Your task to perform on an android device: allow notifications from all sites in the chrome app Image 0: 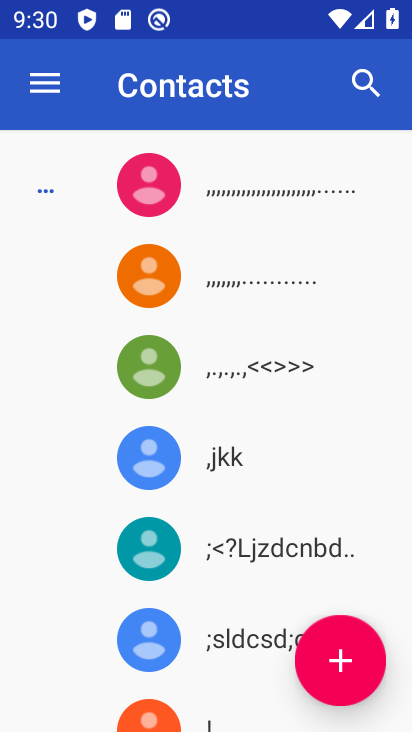
Step 0: press home button
Your task to perform on an android device: allow notifications from all sites in the chrome app Image 1: 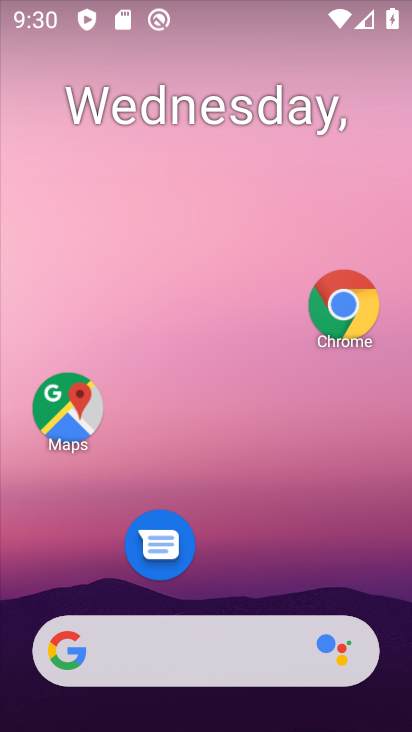
Step 1: click (368, 314)
Your task to perform on an android device: allow notifications from all sites in the chrome app Image 2: 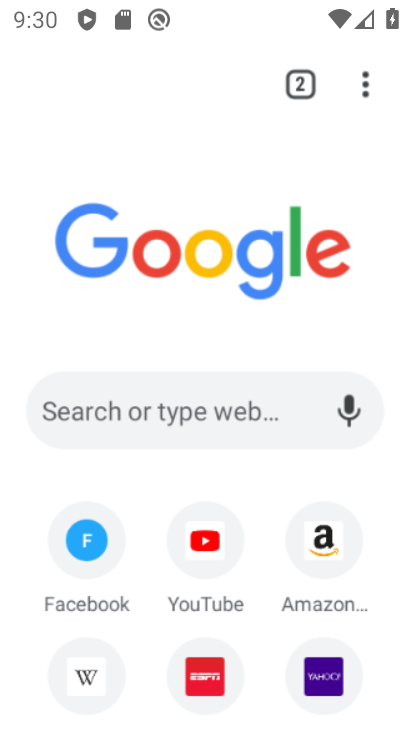
Step 2: click (368, 314)
Your task to perform on an android device: allow notifications from all sites in the chrome app Image 3: 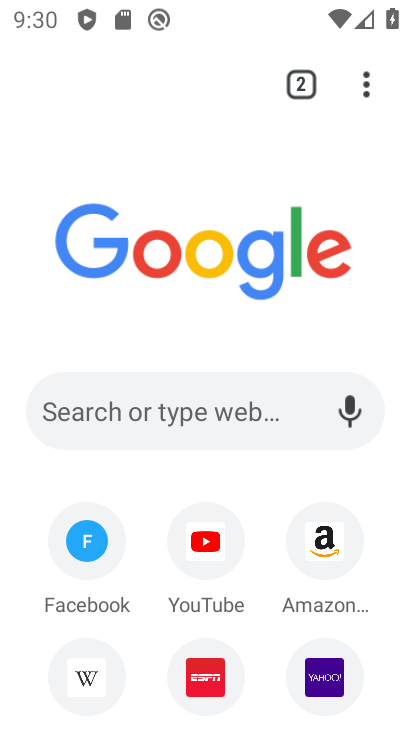
Step 3: click (367, 78)
Your task to perform on an android device: allow notifications from all sites in the chrome app Image 4: 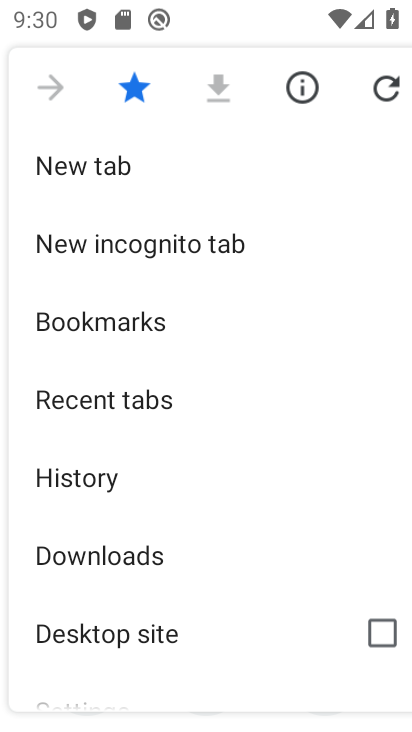
Step 4: drag from (320, 538) to (300, 326)
Your task to perform on an android device: allow notifications from all sites in the chrome app Image 5: 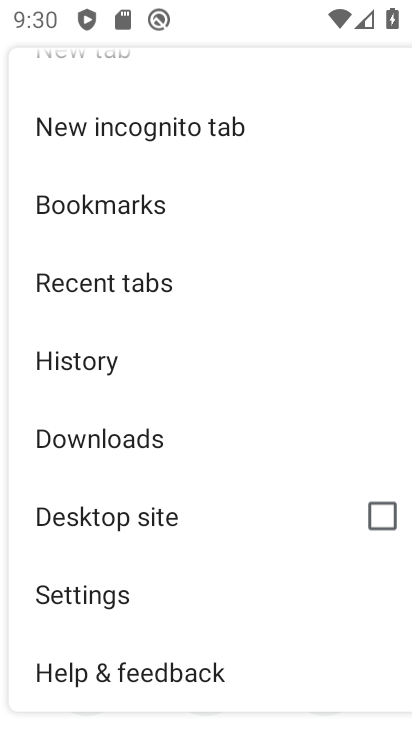
Step 5: click (248, 588)
Your task to perform on an android device: allow notifications from all sites in the chrome app Image 6: 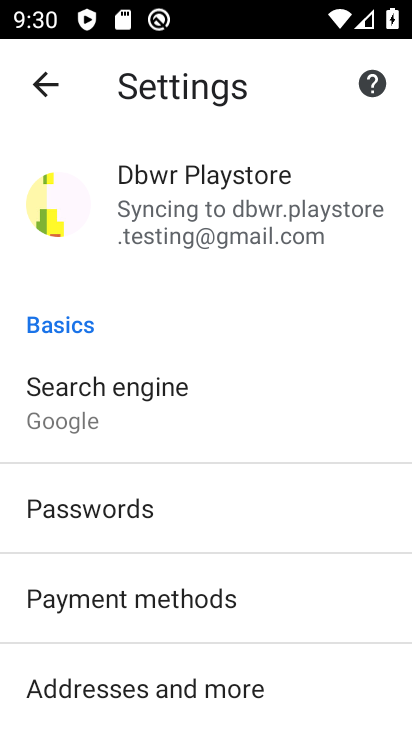
Step 6: drag from (208, 612) to (203, 531)
Your task to perform on an android device: allow notifications from all sites in the chrome app Image 7: 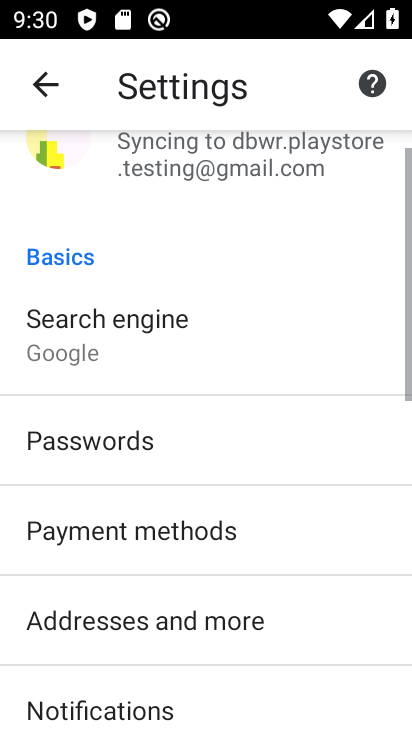
Step 7: click (203, 531)
Your task to perform on an android device: allow notifications from all sites in the chrome app Image 8: 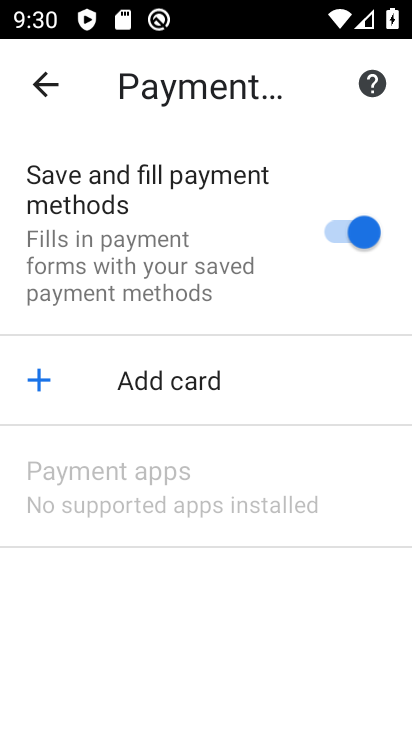
Step 8: click (34, 74)
Your task to perform on an android device: allow notifications from all sites in the chrome app Image 9: 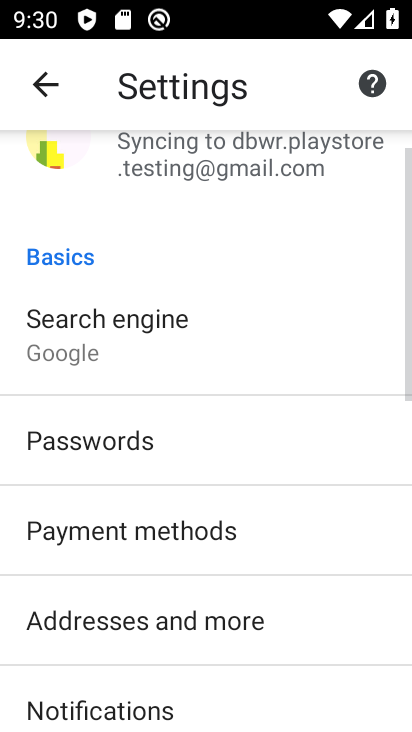
Step 9: drag from (121, 406) to (116, 224)
Your task to perform on an android device: allow notifications from all sites in the chrome app Image 10: 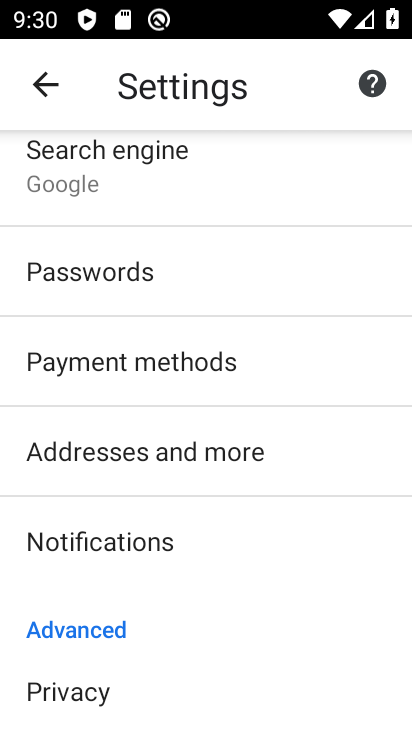
Step 10: click (161, 533)
Your task to perform on an android device: allow notifications from all sites in the chrome app Image 11: 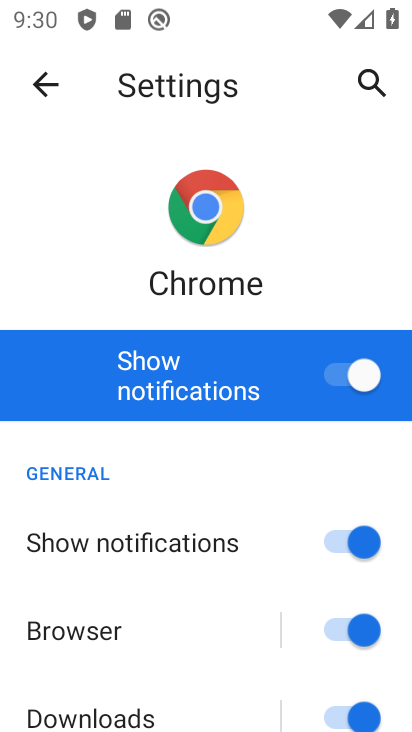
Step 11: task complete